Your task to perform on an android device: Set the phone to "Do not disturb". Image 0: 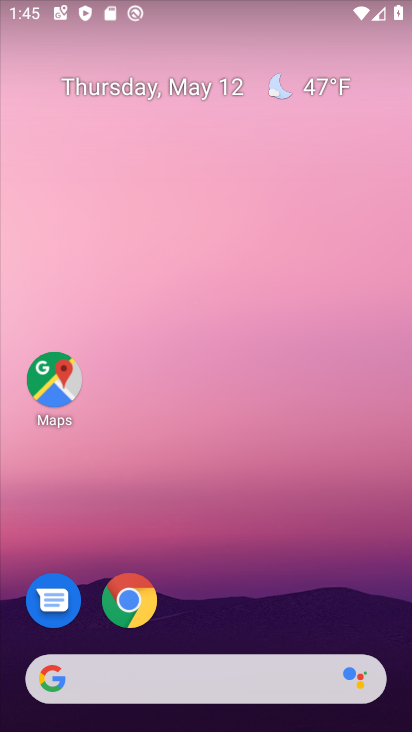
Step 0: drag from (225, 682) to (253, 219)
Your task to perform on an android device: Set the phone to "Do not disturb". Image 1: 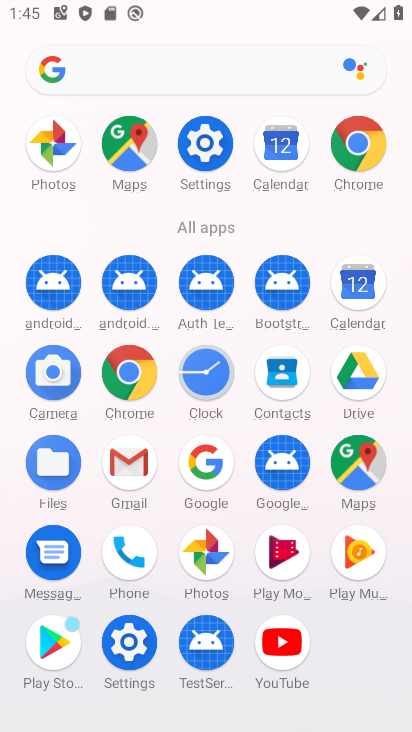
Step 1: click (203, 146)
Your task to perform on an android device: Set the phone to "Do not disturb". Image 2: 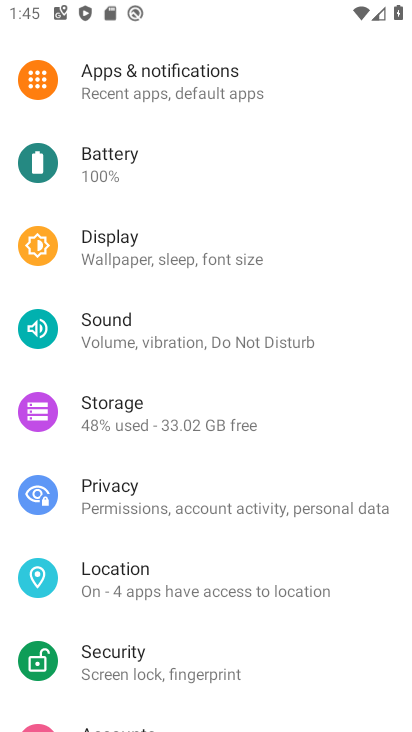
Step 2: click (219, 344)
Your task to perform on an android device: Set the phone to "Do not disturb". Image 3: 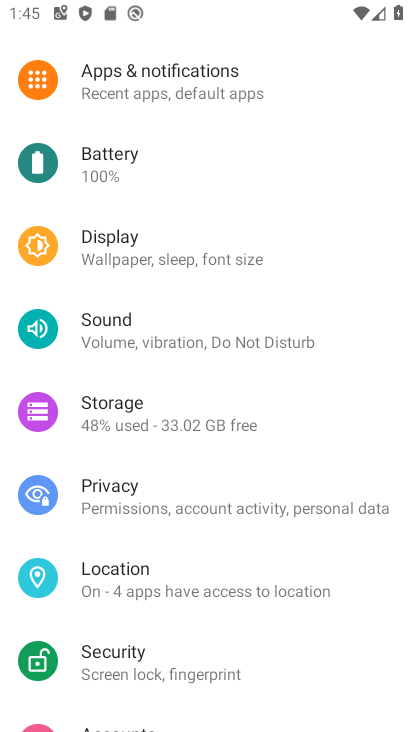
Step 3: click (124, 333)
Your task to perform on an android device: Set the phone to "Do not disturb". Image 4: 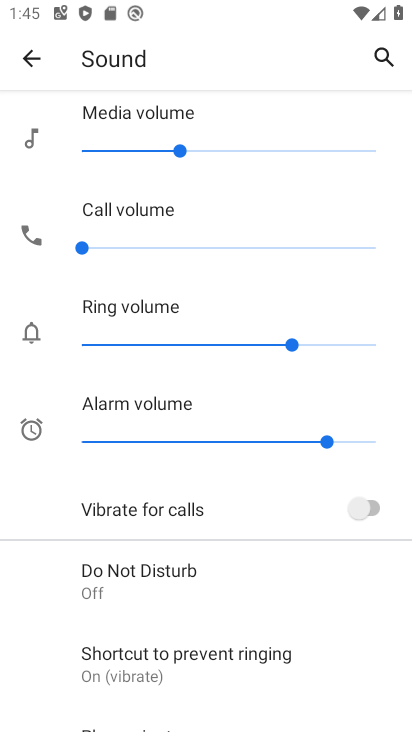
Step 4: drag from (165, 641) to (188, 317)
Your task to perform on an android device: Set the phone to "Do not disturb". Image 5: 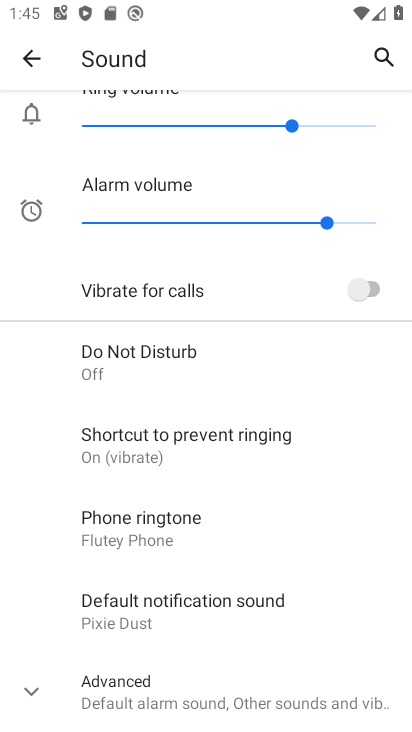
Step 5: click (133, 347)
Your task to perform on an android device: Set the phone to "Do not disturb". Image 6: 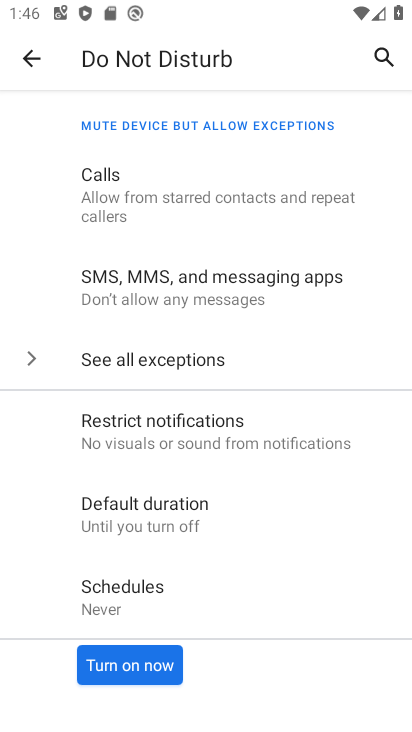
Step 6: click (162, 663)
Your task to perform on an android device: Set the phone to "Do not disturb". Image 7: 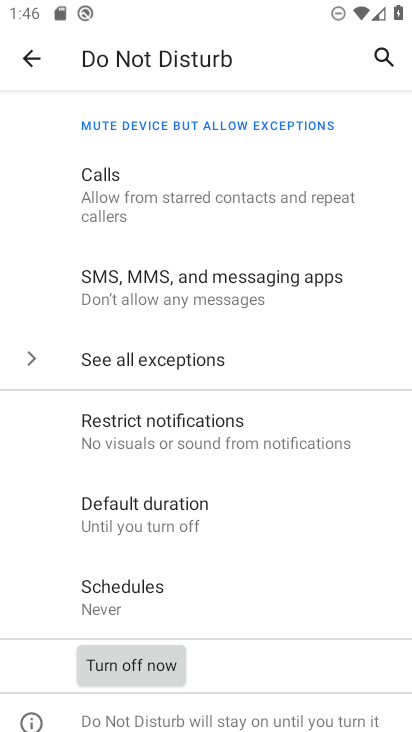
Step 7: task complete